Your task to perform on an android device: Go to calendar. Show me events next week Image 0: 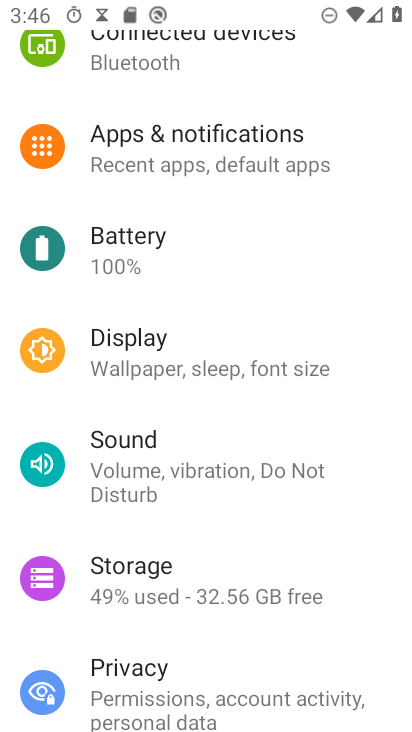
Step 0: press back button
Your task to perform on an android device: Go to calendar. Show me events next week Image 1: 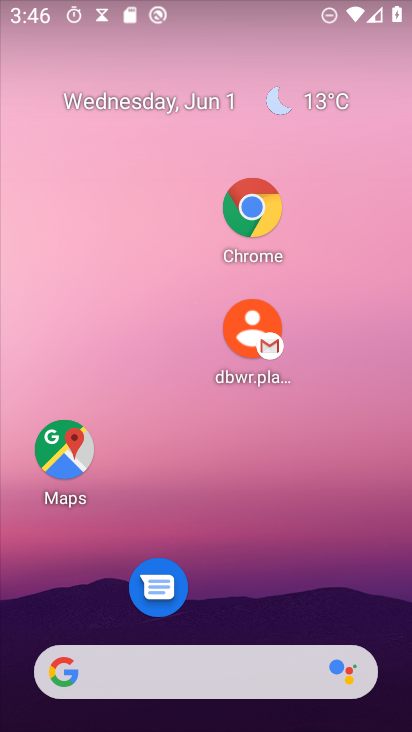
Step 1: drag from (265, 606) to (168, 30)
Your task to perform on an android device: Go to calendar. Show me events next week Image 2: 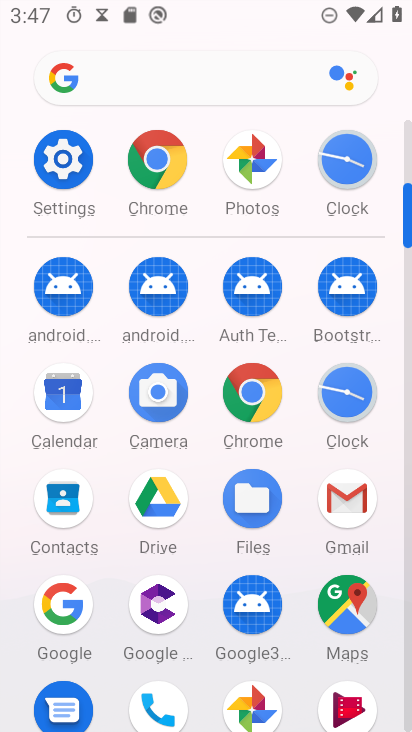
Step 2: click (60, 390)
Your task to perform on an android device: Go to calendar. Show me events next week Image 3: 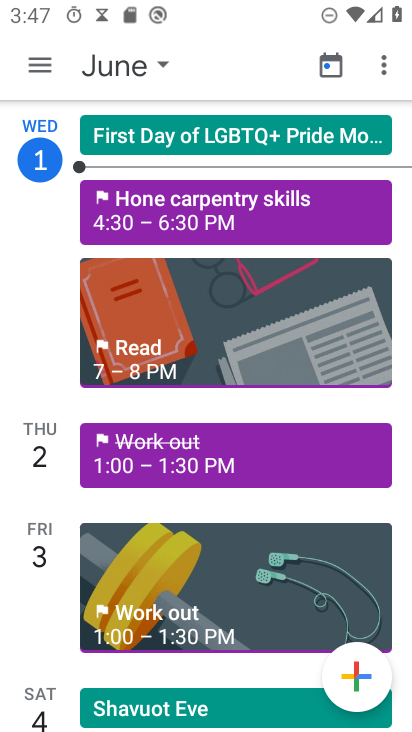
Step 3: click (161, 62)
Your task to perform on an android device: Go to calendar. Show me events next week Image 4: 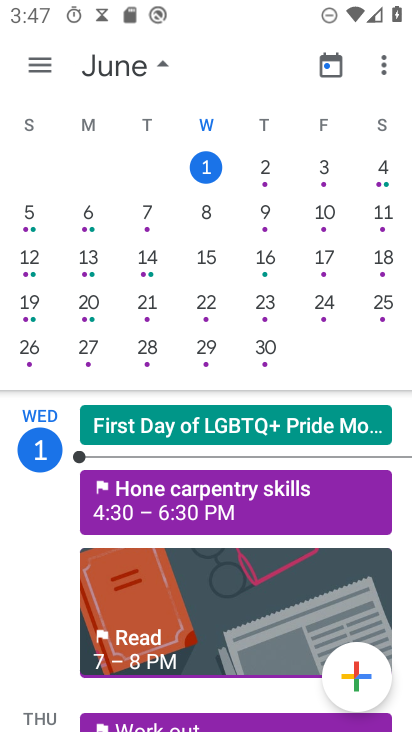
Step 4: click (261, 204)
Your task to perform on an android device: Go to calendar. Show me events next week Image 5: 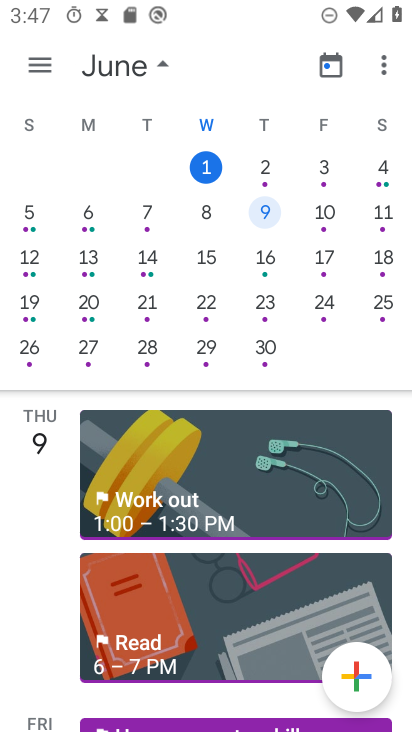
Step 5: click (158, 485)
Your task to perform on an android device: Go to calendar. Show me events next week Image 6: 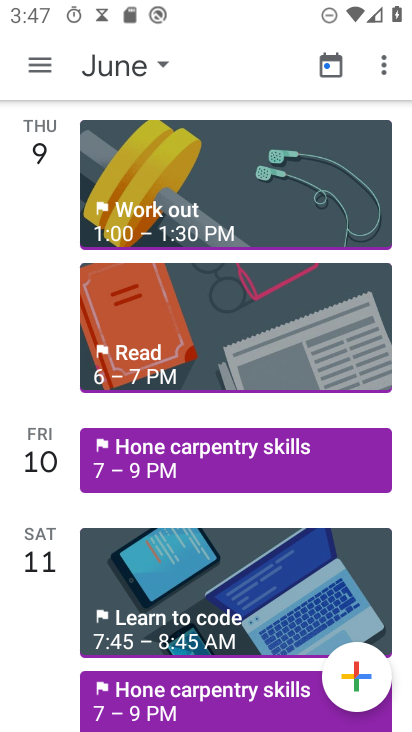
Step 6: task complete